Your task to perform on an android device: Go to location settings Image 0: 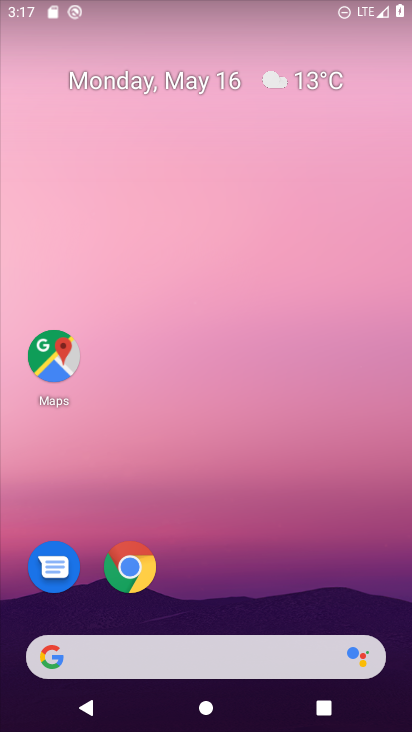
Step 0: drag from (307, 610) to (255, 171)
Your task to perform on an android device: Go to location settings Image 1: 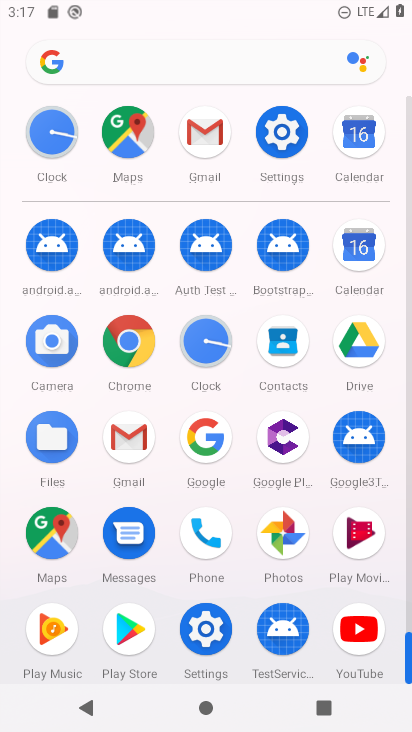
Step 1: click (285, 118)
Your task to perform on an android device: Go to location settings Image 2: 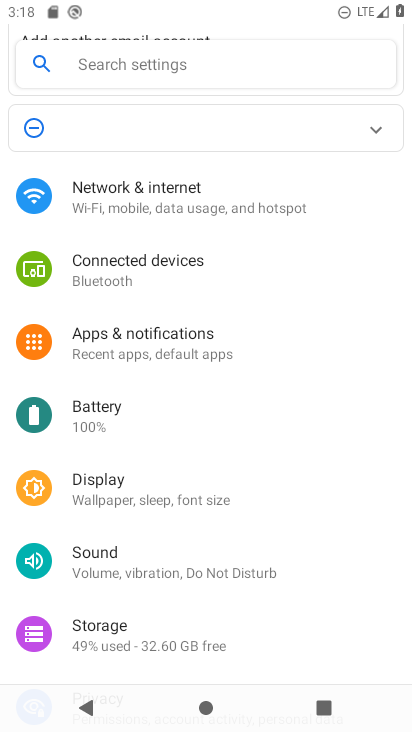
Step 2: drag from (245, 695) to (220, 355)
Your task to perform on an android device: Go to location settings Image 3: 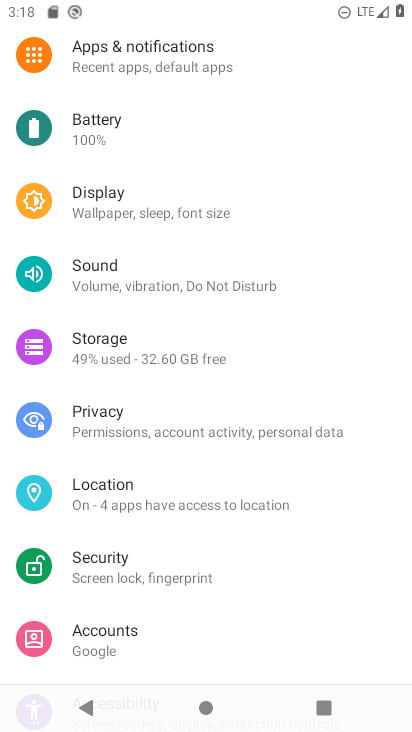
Step 3: click (163, 501)
Your task to perform on an android device: Go to location settings Image 4: 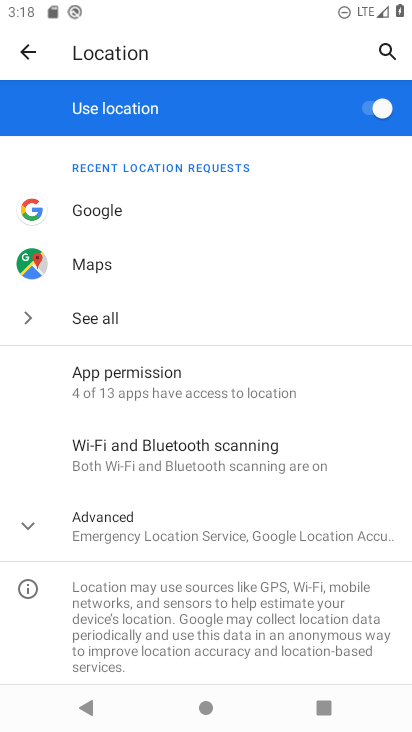
Step 4: task complete